Your task to perform on an android device: Open the map Image 0: 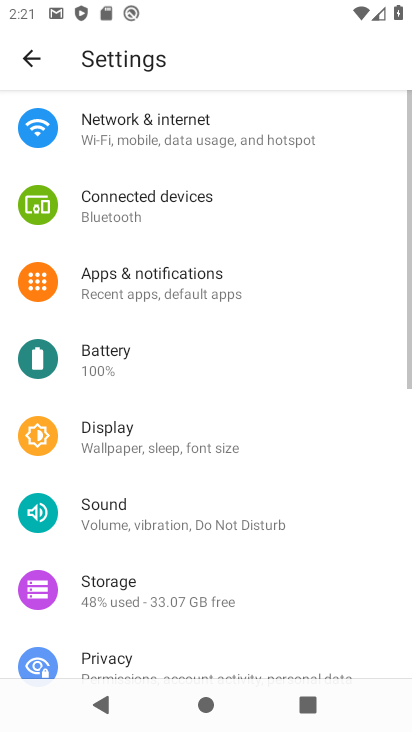
Step 0: press home button
Your task to perform on an android device: Open the map Image 1: 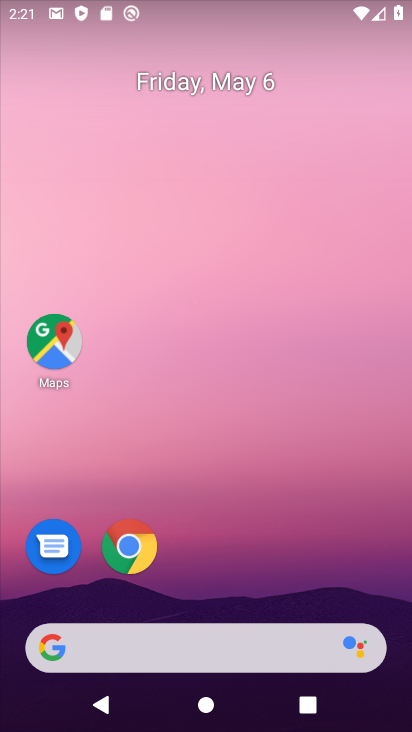
Step 1: click (58, 353)
Your task to perform on an android device: Open the map Image 2: 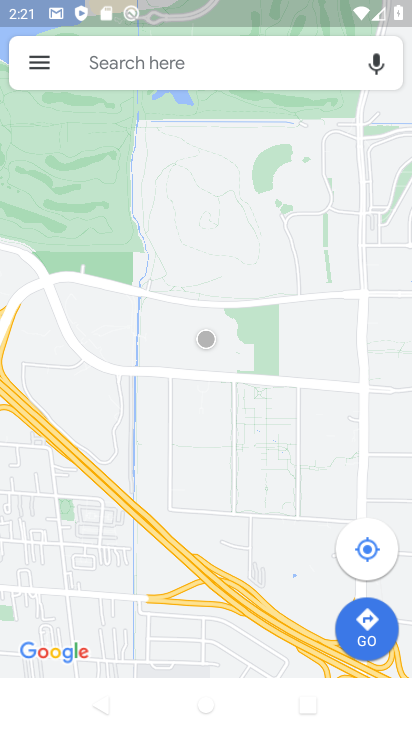
Step 2: task complete